Your task to perform on an android device: Open Youtube and go to "Your channel" Image 0: 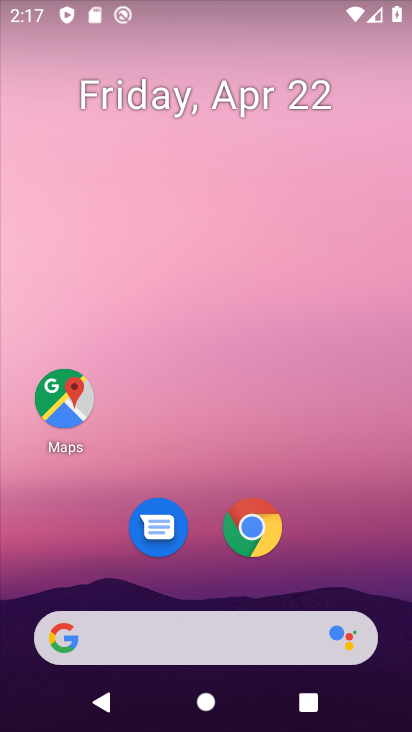
Step 0: drag from (390, 621) to (363, 56)
Your task to perform on an android device: Open Youtube and go to "Your channel" Image 1: 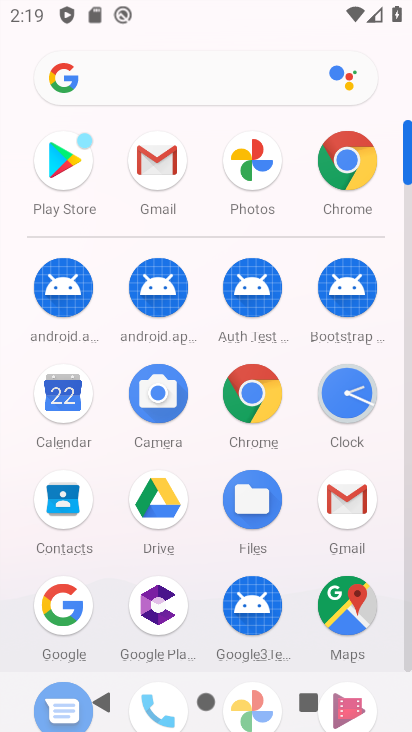
Step 1: click (407, 669)
Your task to perform on an android device: Open Youtube and go to "Your channel" Image 2: 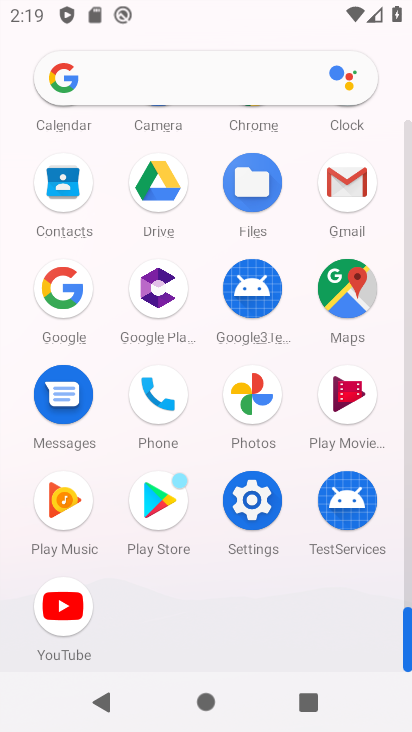
Step 2: click (63, 616)
Your task to perform on an android device: Open Youtube and go to "Your channel" Image 3: 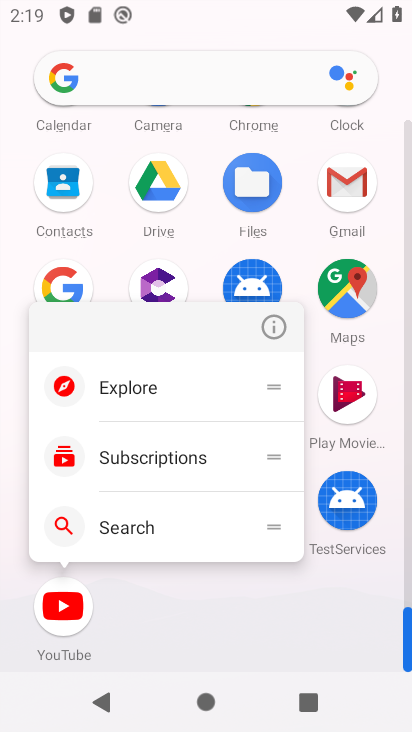
Step 3: click (60, 615)
Your task to perform on an android device: Open Youtube and go to "Your channel" Image 4: 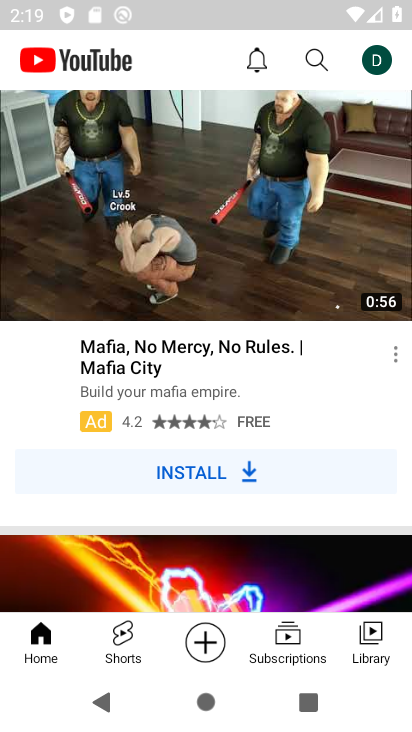
Step 4: click (381, 61)
Your task to perform on an android device: Open Youtube and go to "Your channel" Image 5: 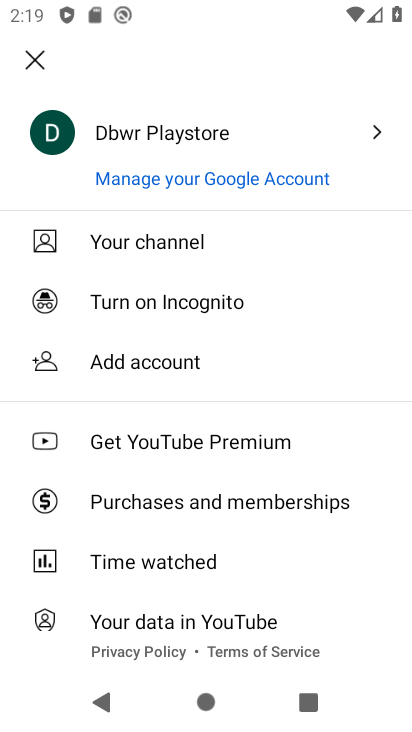
Step 5: click (208, 241)
Your task to perform on an android device: Open Youtube and go to "Your channel" Image 6: 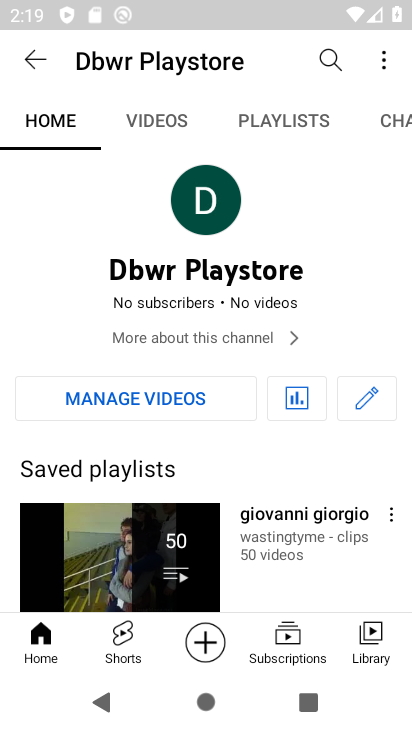
Step 6: task complete